Your task to perform on an android device: remove spam from my inbox in the gmail app Image 0: 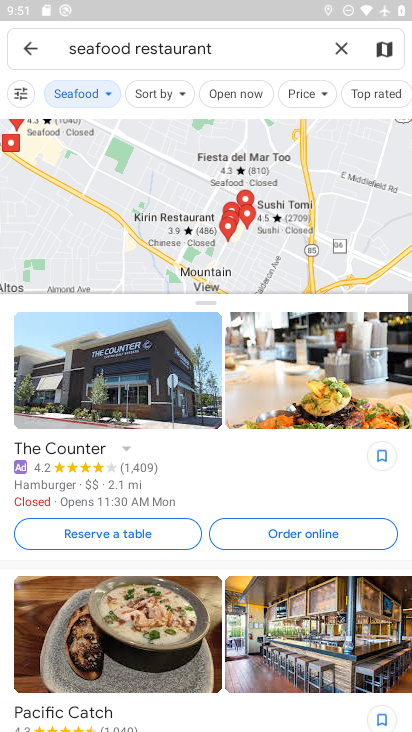
Step 0: press home button
Your task to perform on an android device: remove spam from my inbox in the gmail app Image 1: 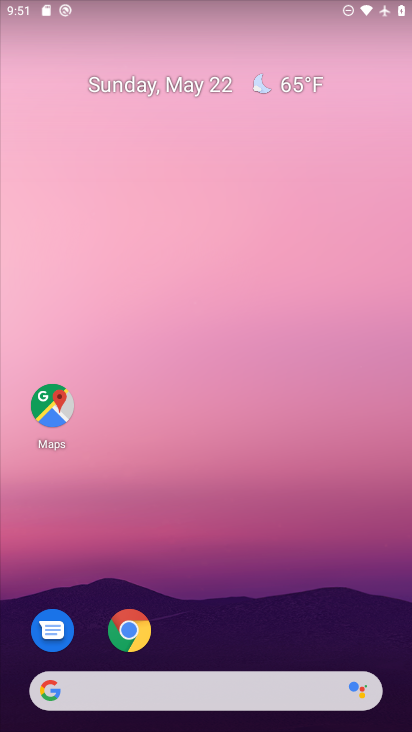
Step 1: drag from (137, 692) to (292, 190)
Your task to perform on an android device: remove spam from my inbox in the gmail app Image 2: 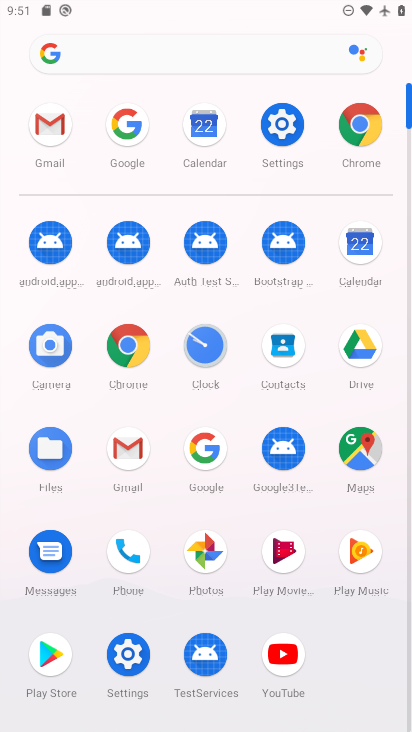
Step 2: click (136, 459)
Your task to perform on an android device: remove spam from my inbox in the gmail app Image 3: 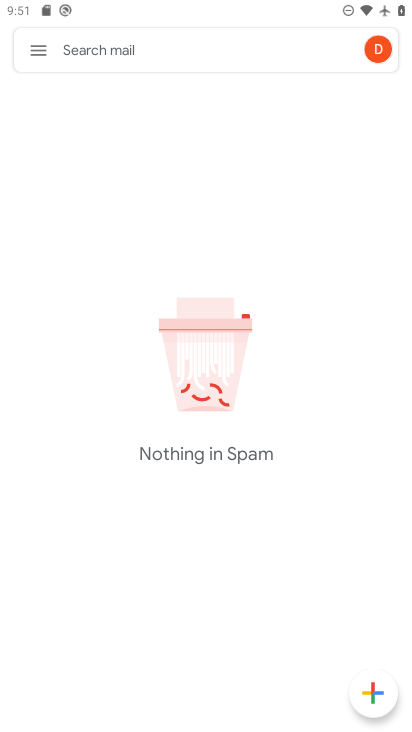
Step 3: task complete